Your task to perform on an android device: Open Google Maps Image 0: 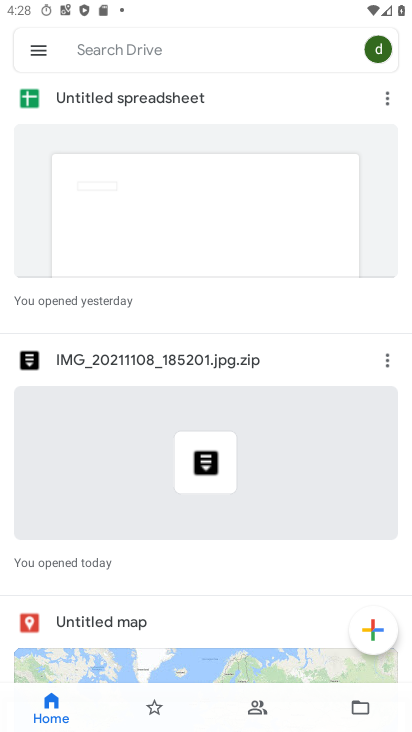
Step 0: press home button
Your task to perform on an android device: Open Google Maps Image 1: 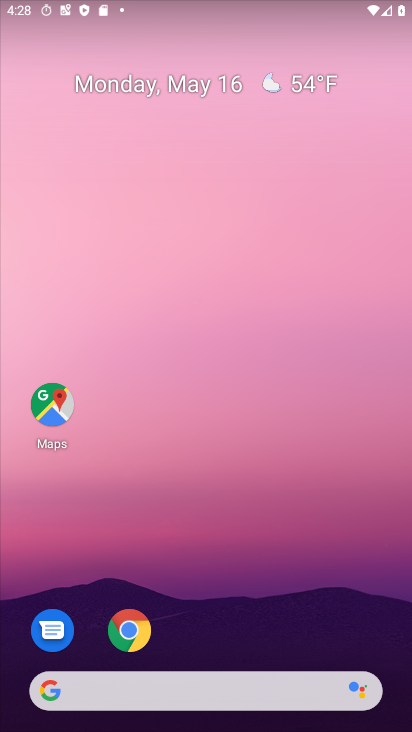
Step 1: drag from (209, 625) to (212, 69)
Your task to perform on an android device: Open Google Maps Image 2: 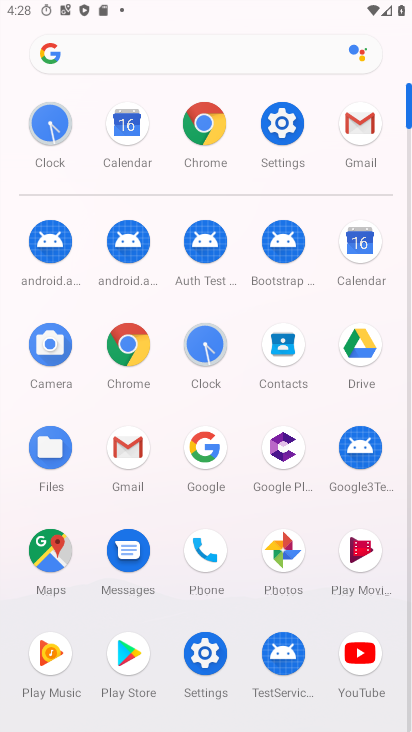
Step 2: click (51, 544)
Your task to perform on an android device: Open Google Maps Image 3: 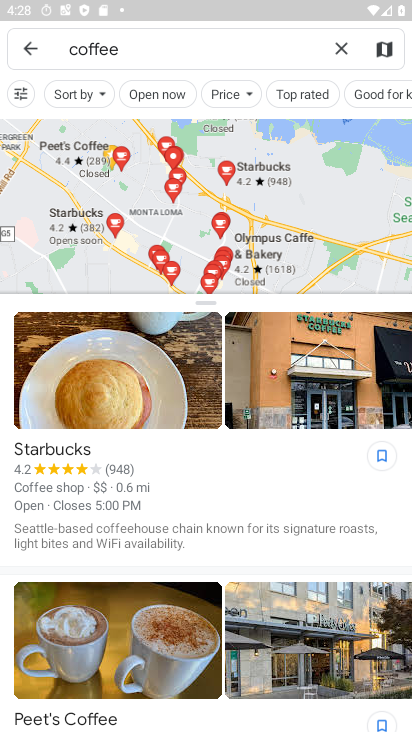
Step 3: task complete